Your task to perform on an android device: When is my next meeting? Image 0: 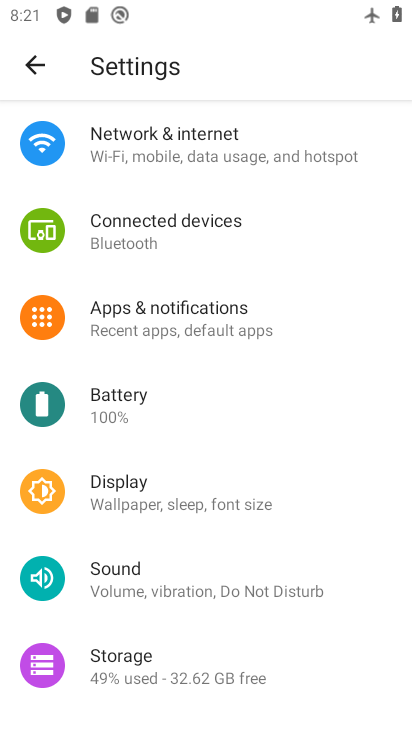
Step 0: task impossible